Your task to perform on an android device: turn off location Image 0: 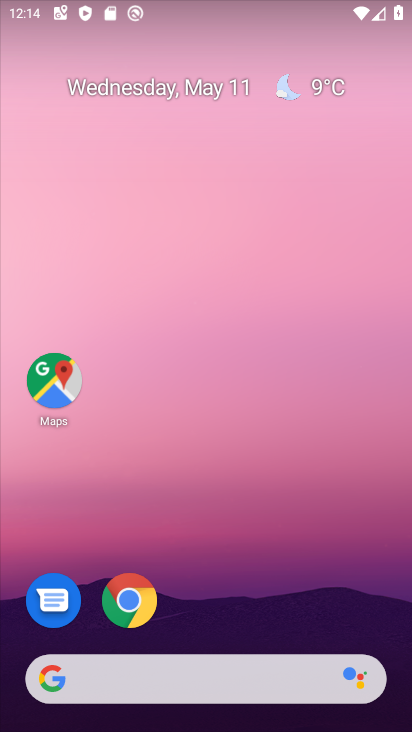
Step 0: drag from (197, 715) to (195, 180)
Your task to perform on an android device: turn off location Image 1: 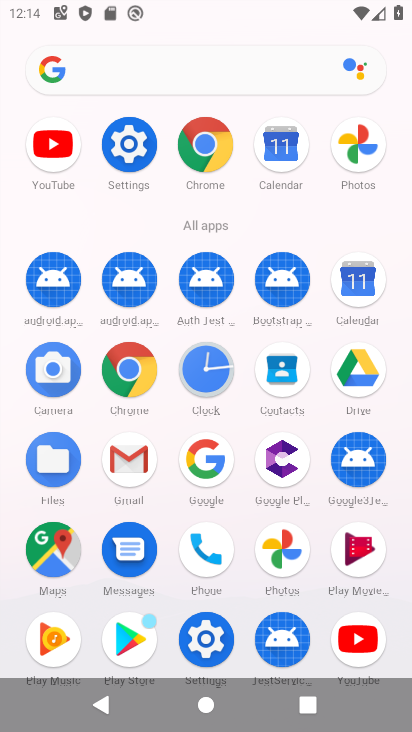
Step 1: click (120, 158)
Your task to perform on an android device: turn off location Image 2: 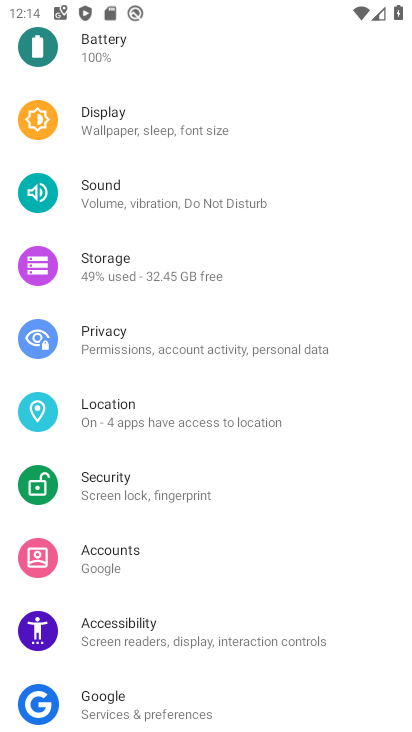
Step 2: click (165, 414)
Your task to perform on an android device: turn off location Image 3: 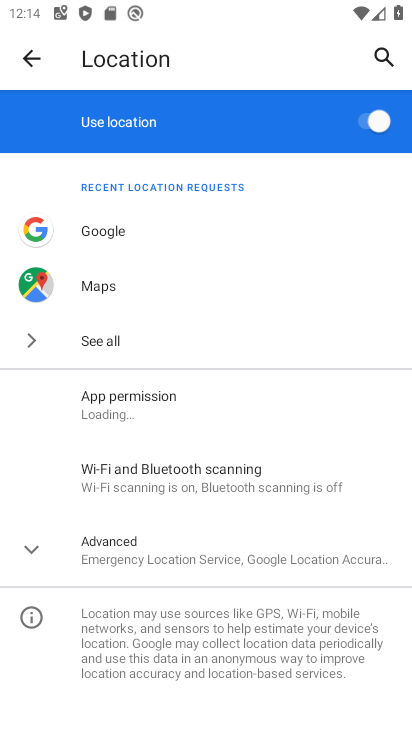
Step 3: click (374, 113)
Your task to perform on an android device: turn off location Image 4: 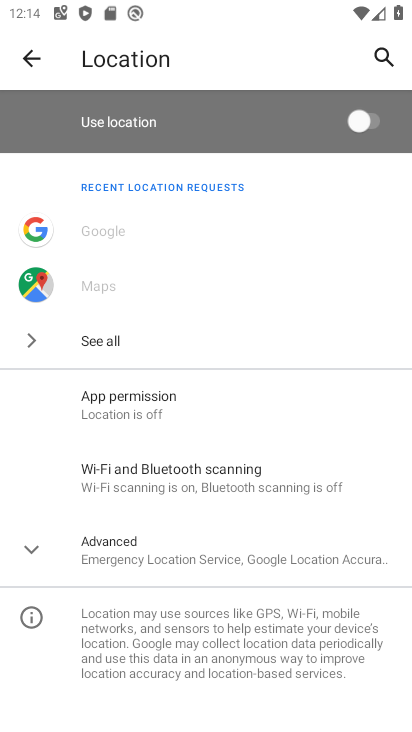
Step 4: task complete